Your task to perform on an android device: remove spam from my inbox in the gmail app Image 0: 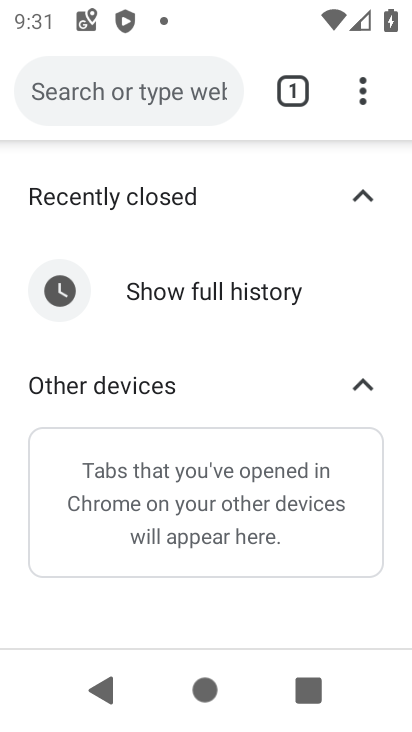
Step 0: press home button
Your task to perform on an android device: remove spam from my inbox in the gmail app Image 1: 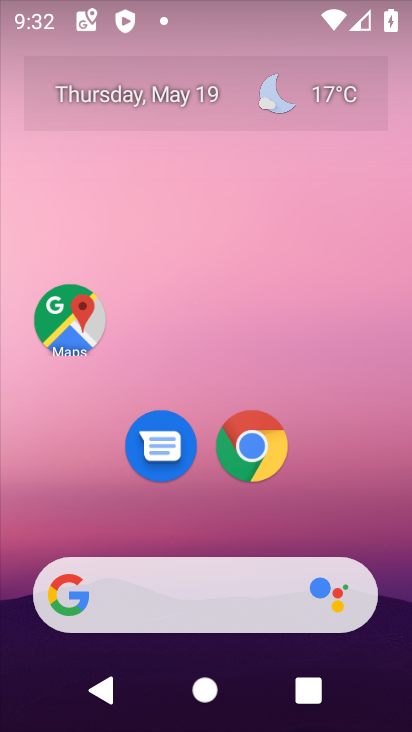
Step 1: drag from (223, 531) to (251, 0)
Your task to perform on an android device: remove spam from my inbox in the gmail app Image 2: 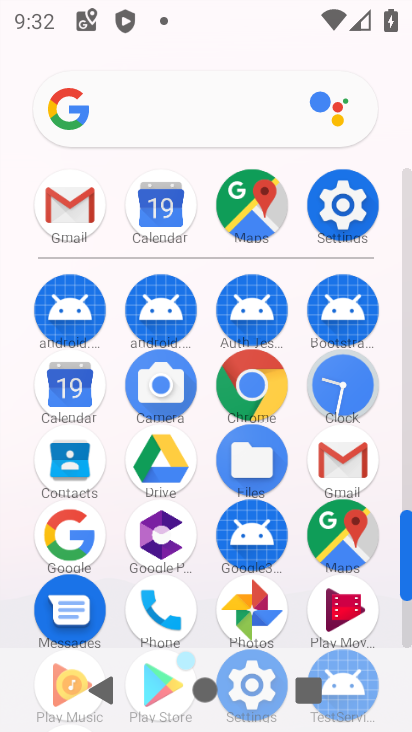
Step 2: click (335, 455)
Your task to perform on an android device: remove spam from my inbox in the gmail app Image 3: 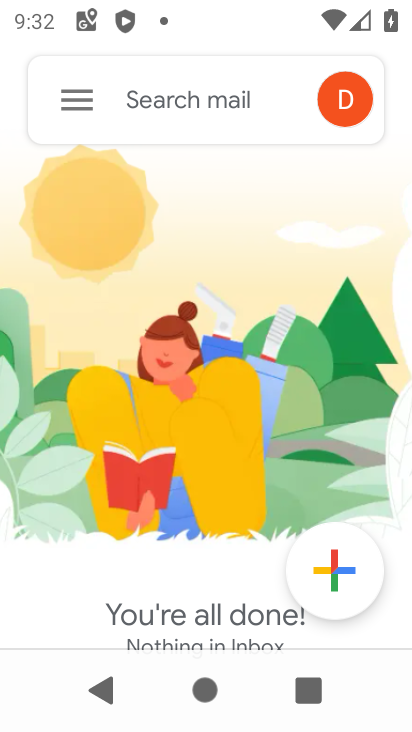
Step 3: click (81, 100)
Your task to perform on an android device: remove spam from my inbox in the gmail app Image 4: 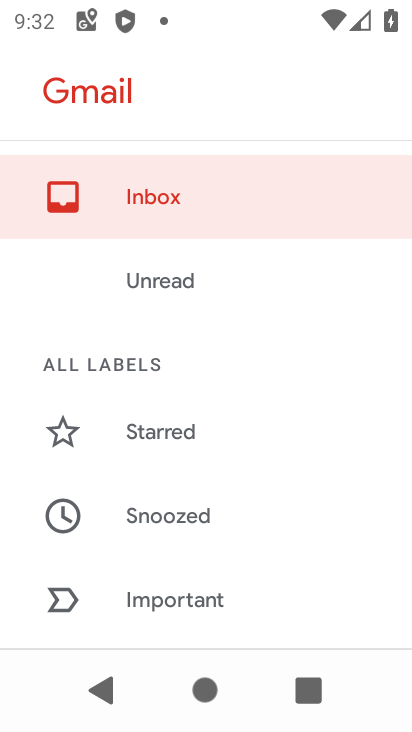
Step 4: drag from (141, 555) to (209, 231)
Your task to perform on an android device: remove spam from my inbox in the gmail app Image 5: 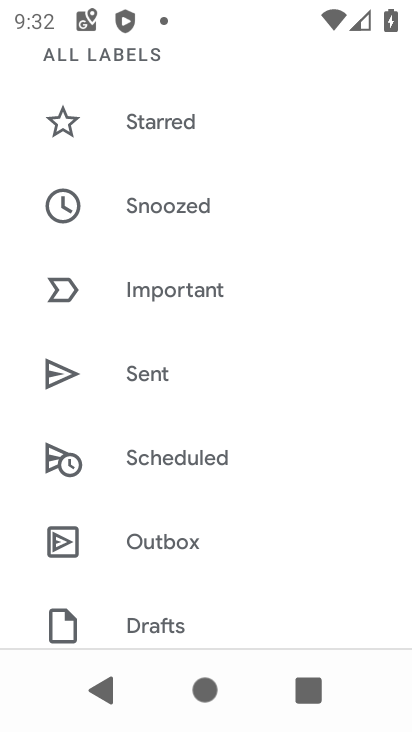
Step 5: drag from (181, 531) to (225, 220)
Your task to perform on an android device: remove spam from my inbox in the gmail app Image 6: 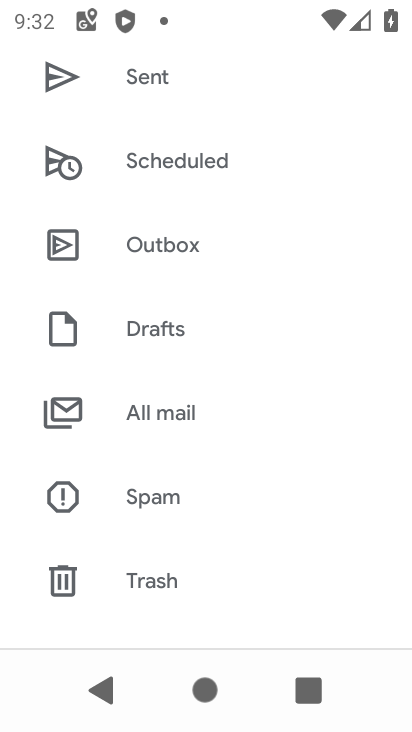
Step 6: click (165, 497)
Your task to perform on an android device: remove spam from my inbox in the gmail app Image 7: 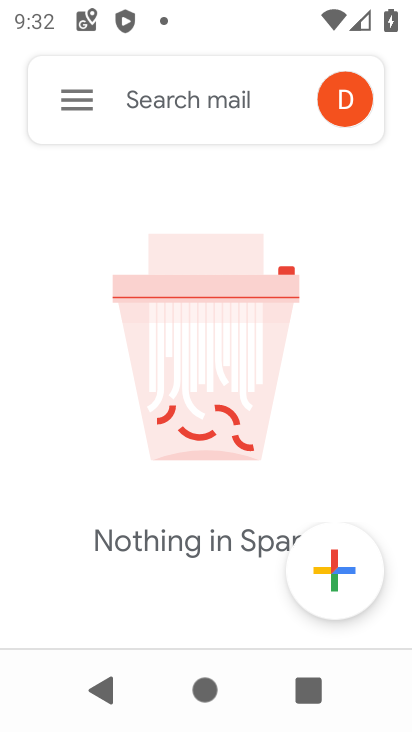
Step 7: task complete